Your task to perform on an android device: open wifi settings Image 0: 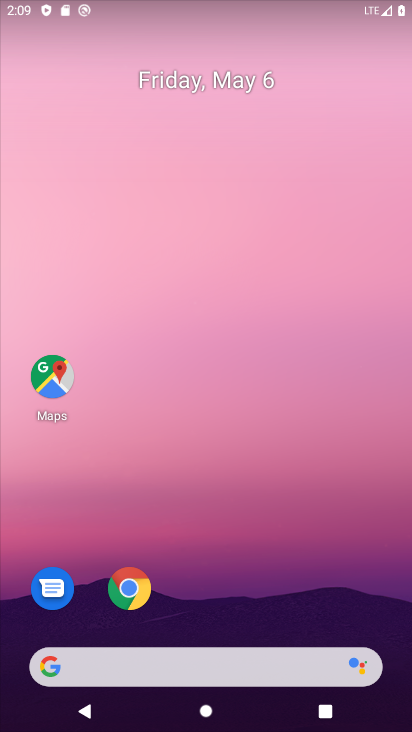
Step 0: drag from (377, 617) to (355, 205)
Your task to perform on an android device: open wifi settings Image 1: 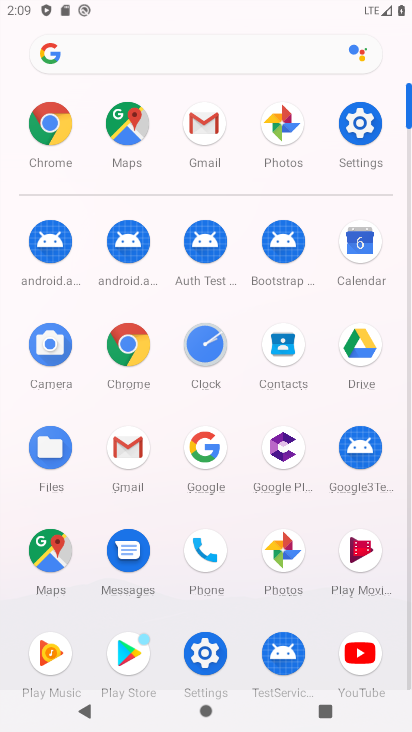
Step 1: click (215, 664)
Your task to perform on an android device: open wifi settings Image 2: 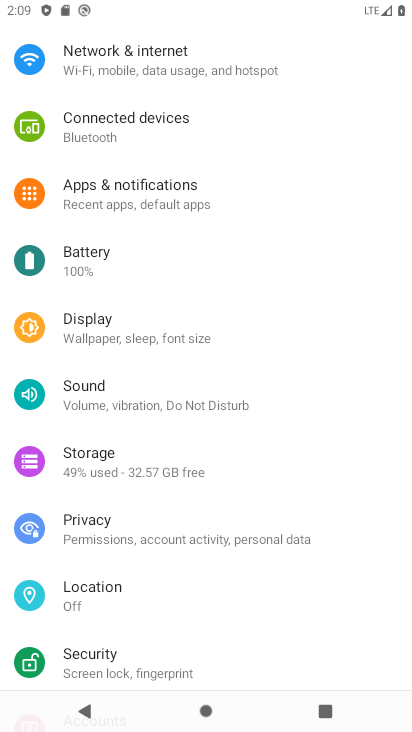
Step 2: drag from (284, 136) to (289, 592)
Your task to perform on an android device: open wifi settings Image 3: 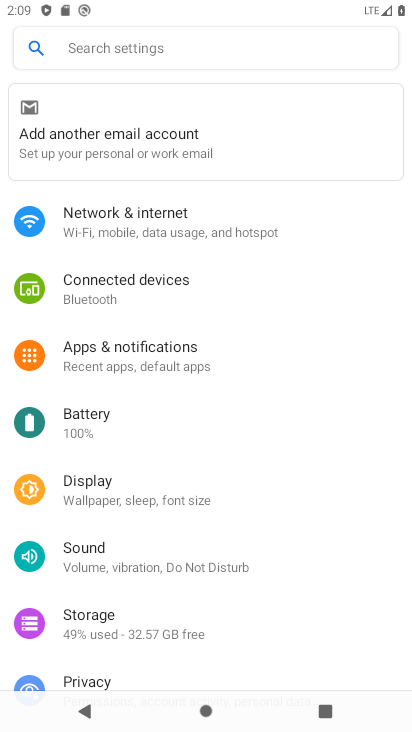
Step 3: click (238, 228)
Your task to perform on an android device: open wifi settings Image 4: 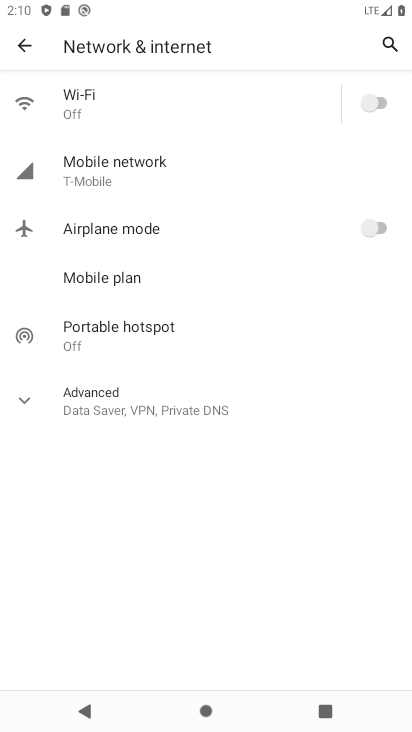
Step 4: click (143, 102)
Your task to perform on an android device: open wifi settings Image 5: 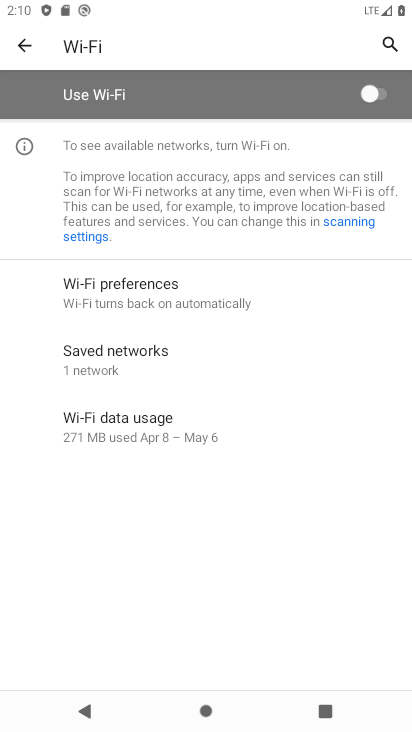
Step 5: task complete